Your task to perform on an android device: add a contact Image 0: 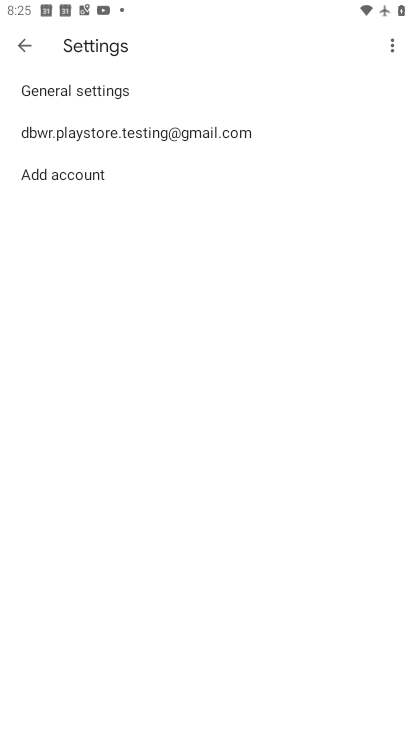
Step 0: click (403, 649)
Your task to perform on an android device: add a contact Image 1: 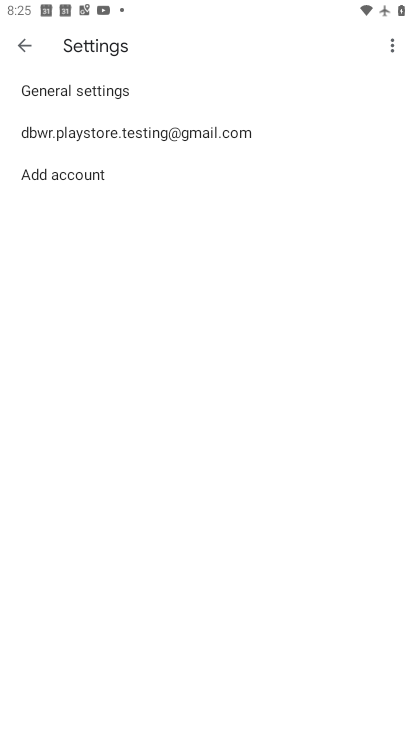
Step 1: press home button
Your task to perform on an android device: add a contact Image 2: 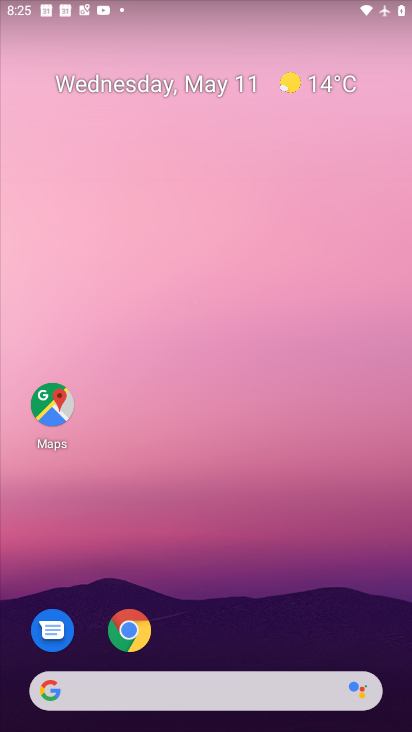
Step 2: drag from (227, 667) to (169, 280)
Your task to perform on an android device: add a contact Image 3: 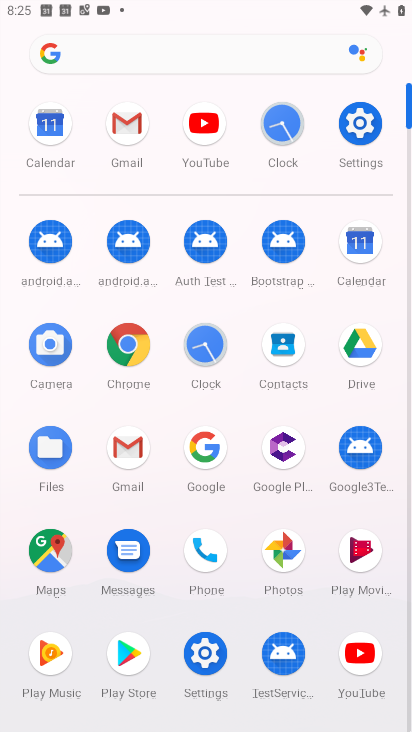
Step 3: click (203, 553)
Your task to perform on an android device: add a contact Image 4: 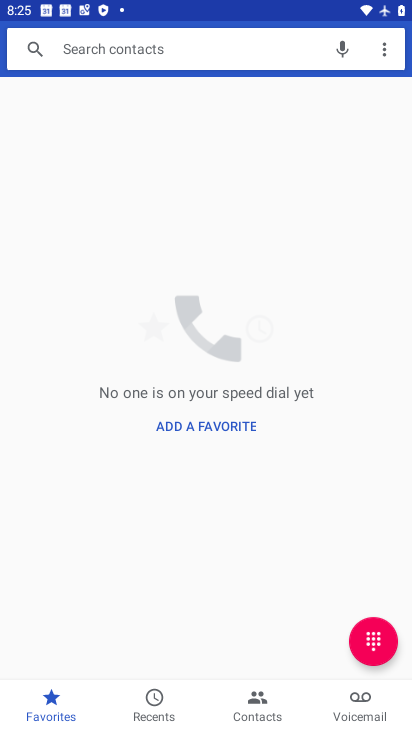
Step 4: click (251, 698)
Your task to perform on an android device: add a contact Image 5: 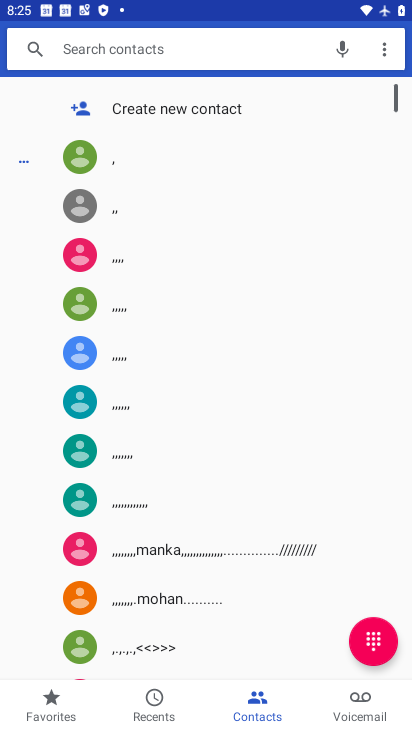
Step 5: click (208, 99)
Your task to perform on an android device: add a contact Image 6: 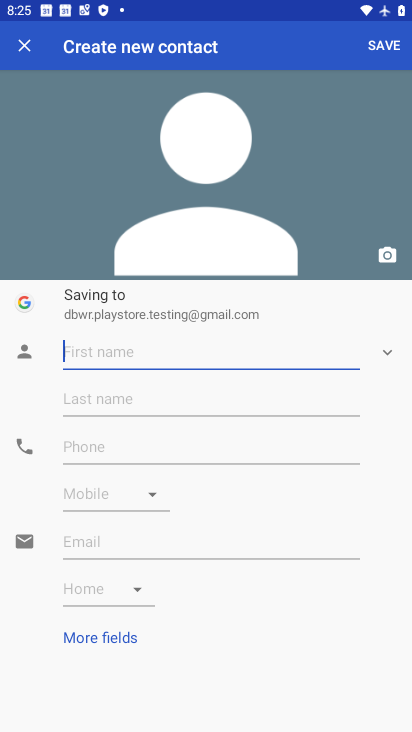
Step 6: type "jih"
Your task to perform on an android device: add a contact Image 7: 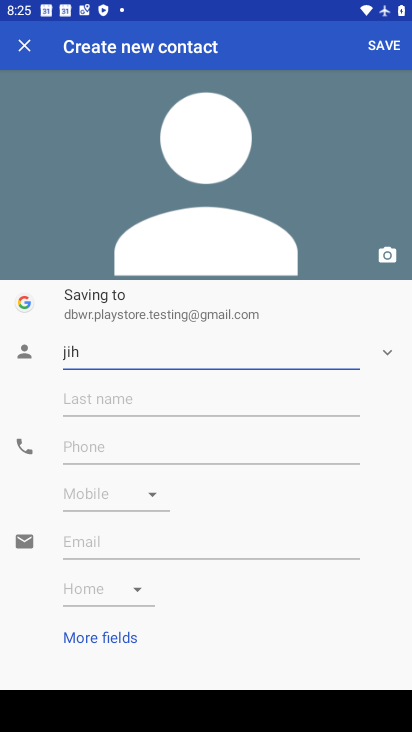
Step 7: click (89, 435)
Your task to perform on an android device: add a contact Image 8: 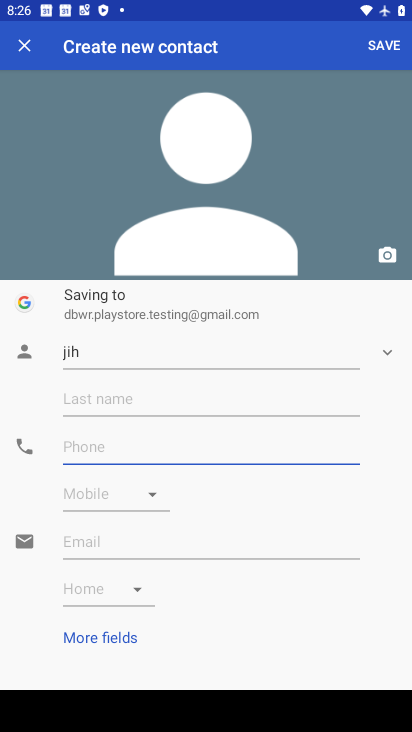
Step 8: type "909009"
Your task to perform on an android device: add a contact Image 9: 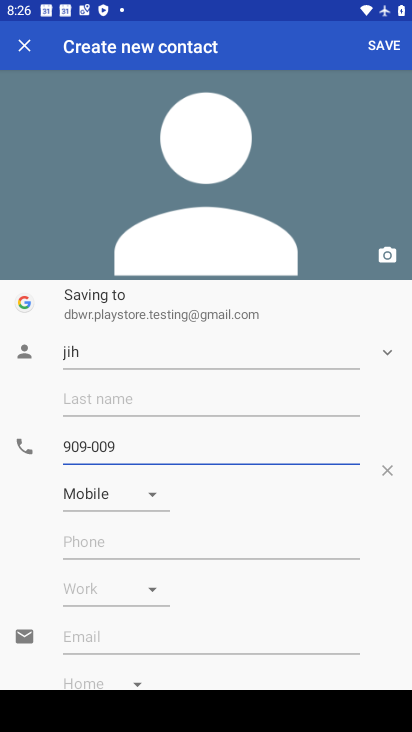
Step 9: click (386, 39)
Your task to perform on an android device: add a contact Image 10: 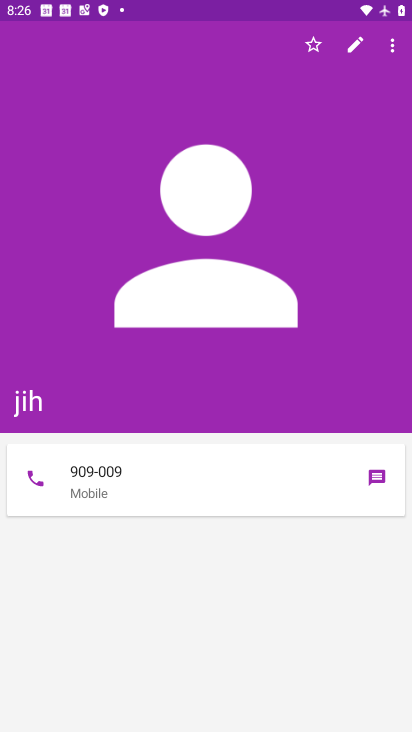
Step 10: task complete